Your task to perform on an android device: find photos in the google photos app Image 0: 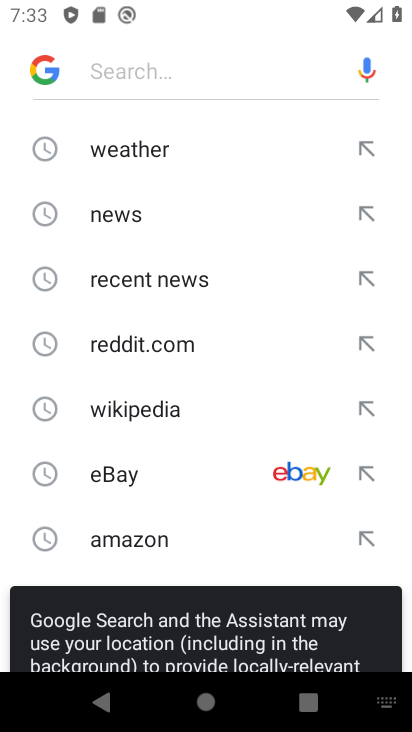
Step 0: press home button
Your task to perform on an android device: find photos in the google photos app Image 1: 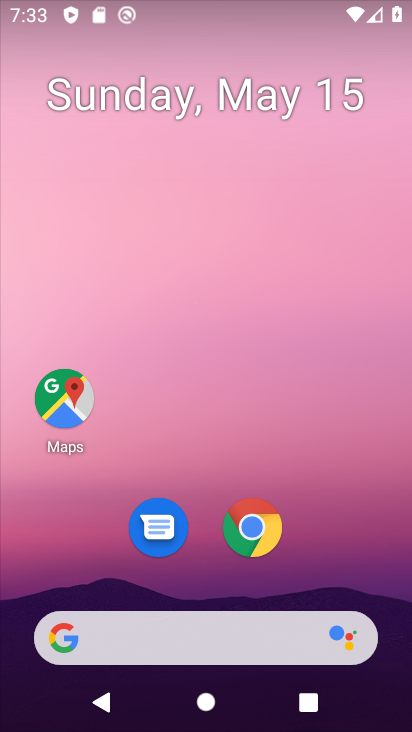
Step 1: drag from (215, 594) to (327, 198)
Your task to perform on an android device: find photos in the google photos app Image 2: 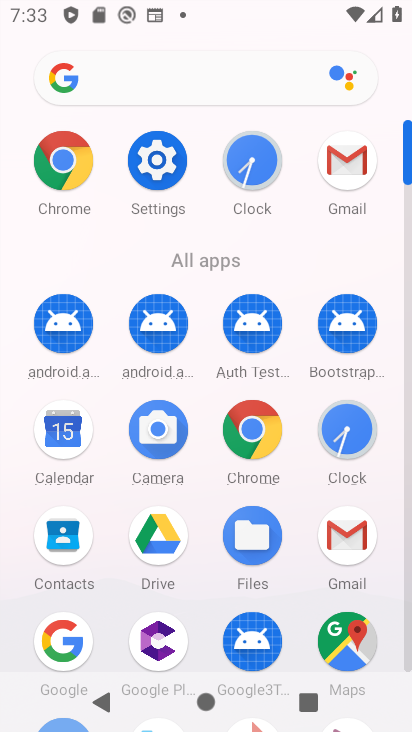
Step 2: drag from (218, 598) to (347, 213)
Your task to perform on an android device: find photos in the google photos app Image 3: 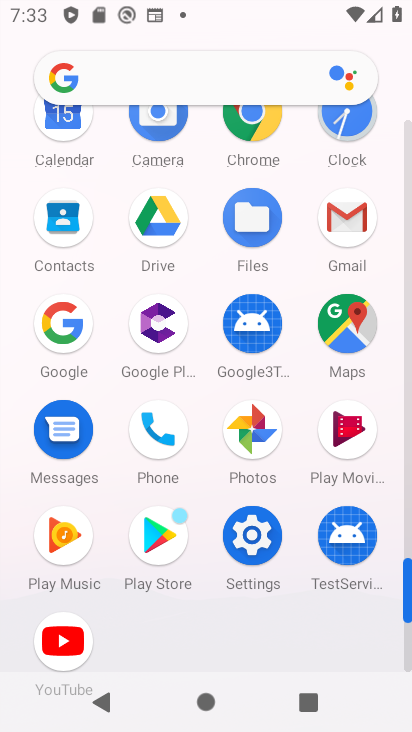
Step 3: click (255, 443)
Your task to perform on an android device: find photos in the google photos app Image 4: 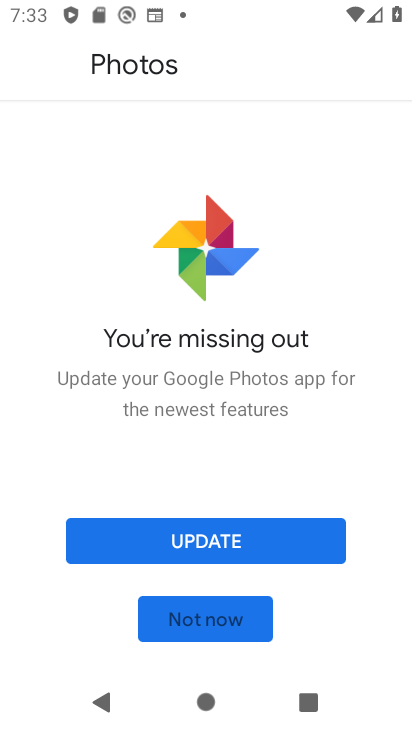
Step 4: click (202, 617)
Your task to perform on an android device: find photos in the google photos app Image 5: 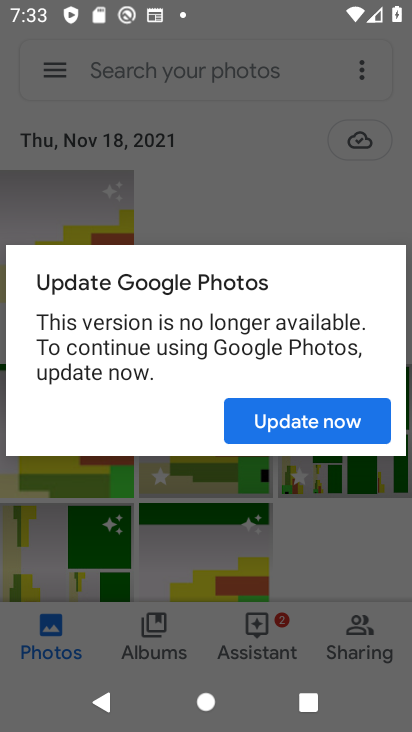
Step 5: click (299, 419)
Your task to perform on an android device: find photos in the google photos app Image 6: 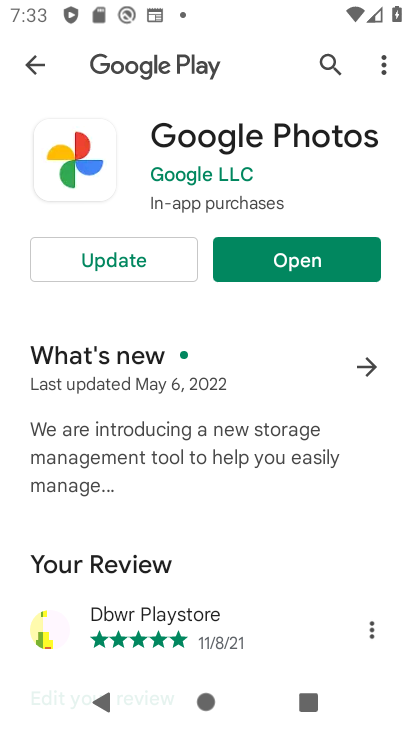
Step 6: click (128, 261)
Your task to perform on an android device: find photos in the google photos app Image 7: 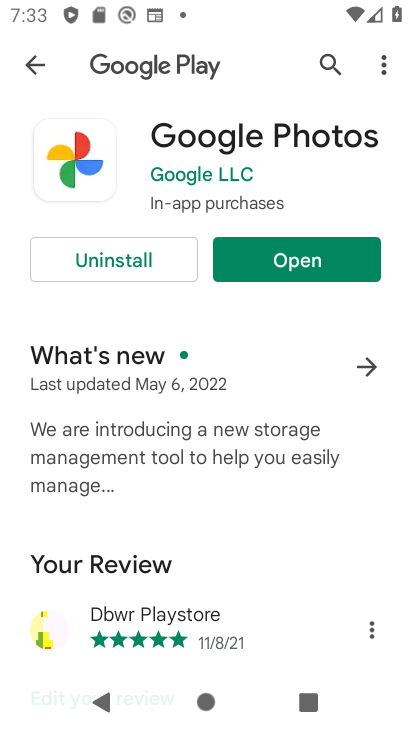
Step 7: click (323, 262)
Your task to perform on an android device: find photos in the google photos app Image 8: 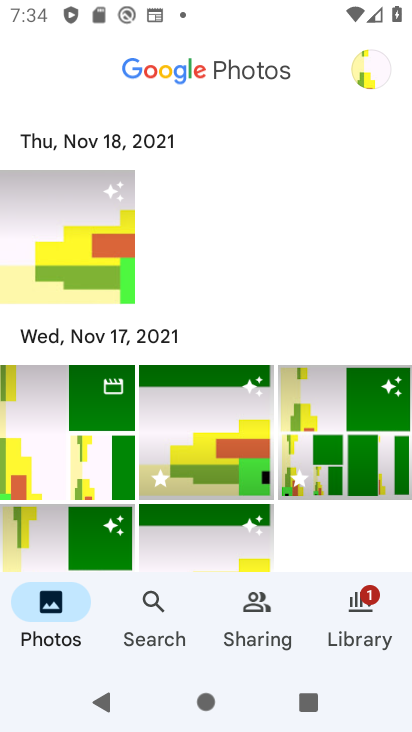
Step 8: task complete